Your task to perform on an android device: Show me the alarms in the clock app Image 0: 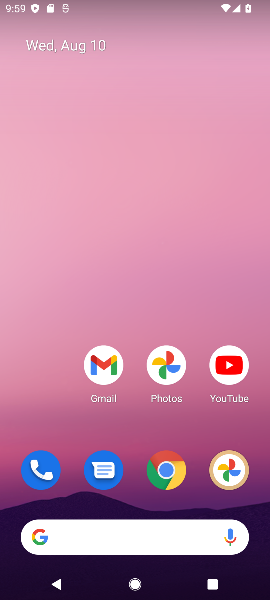
Step 0: drag from (130, 257) to (115, 24)
Your task to perform on an android device: Show me the alarms in the clock app Image 1: 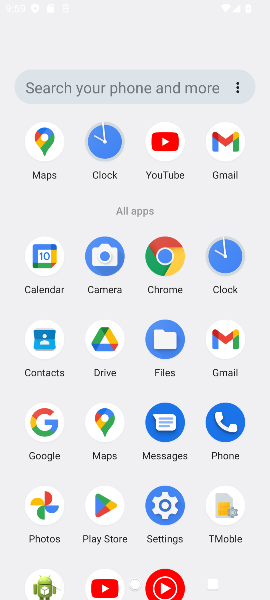
Step 1: drag from (96, 167) to (123, 104)
Your task to perform on an android device: Show me the alarms in the clock app Image 2: 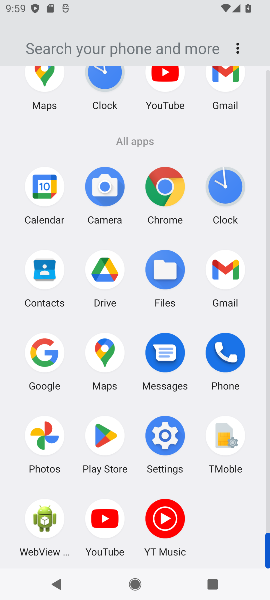
Step 2: click (109, 81)
Your task to perform on an android device: Show me the alarms in the clock app Image 3: 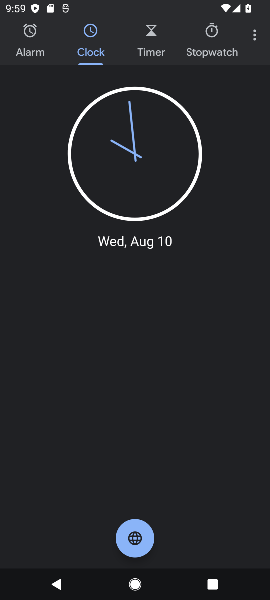
Step 3: click (42, 54)
Your task to perform on an android device: Show me the alarms in the clock app Image 4: 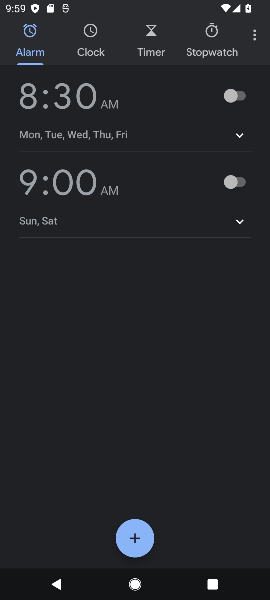
Step 4: task complete